Your task to perform on an android device: Open Maps and search for coffee Image 0: 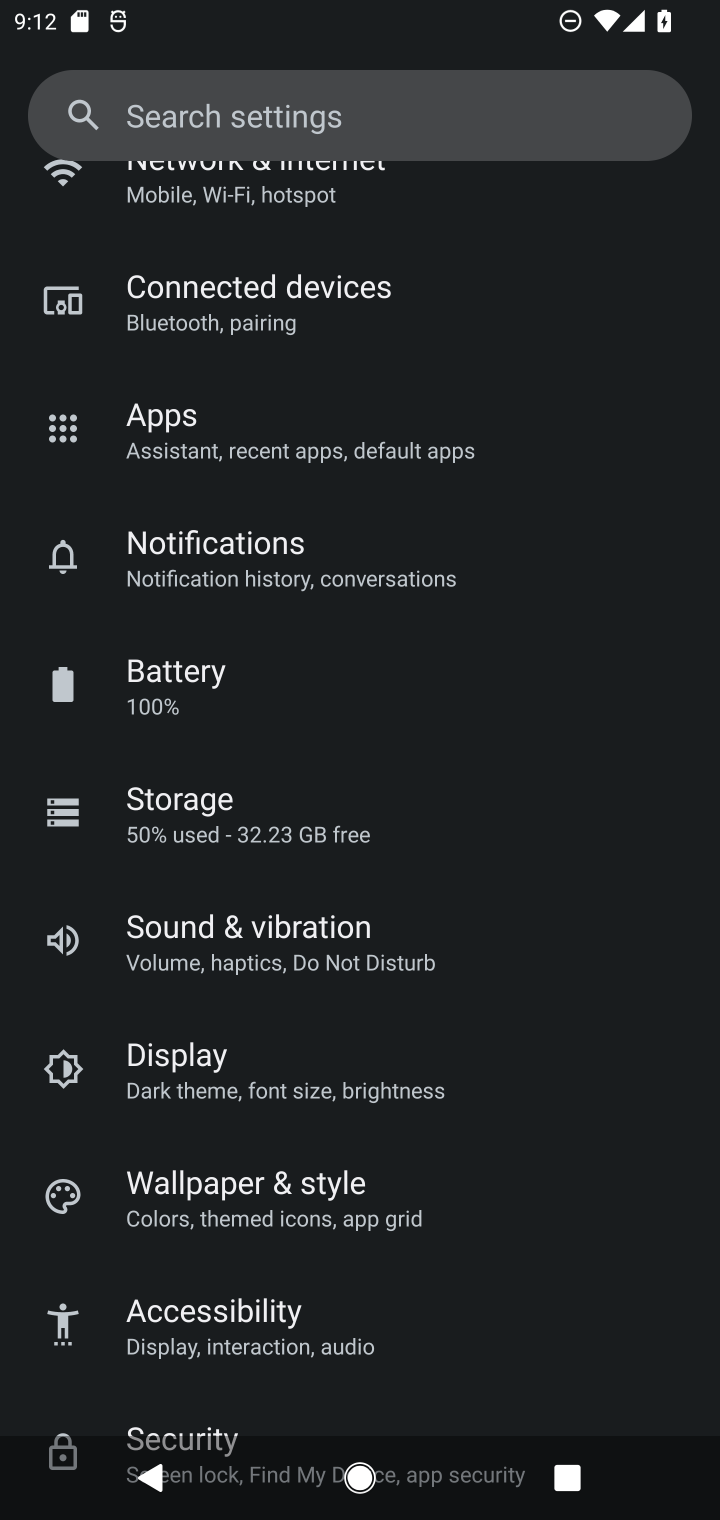
Step 0: press home button
Your task to perform on an android device: Open Maps and search for coffee Image 1: 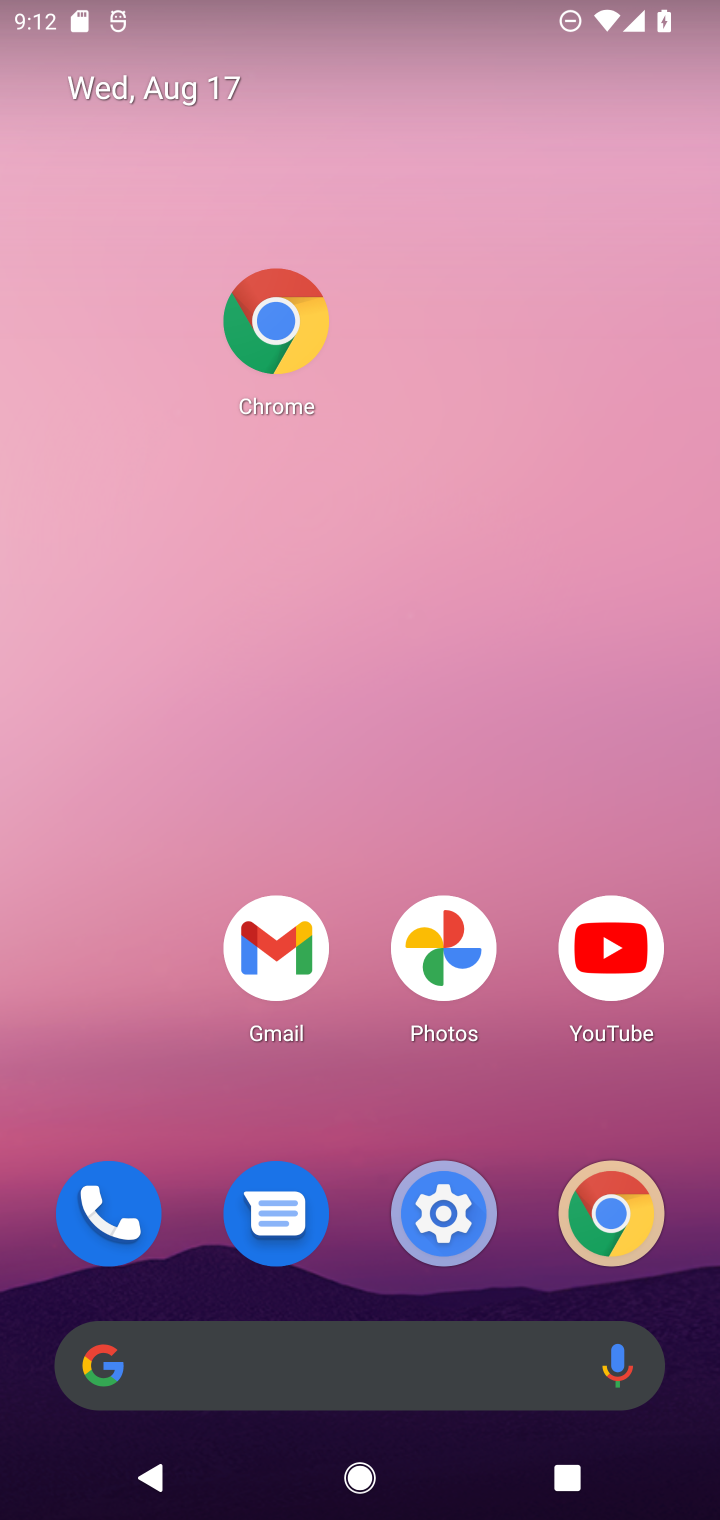
Step 1: drag from (372, 1302) to (366, 496)
Your task to perform on an android device: Open Maps and search for coffee Image 2: 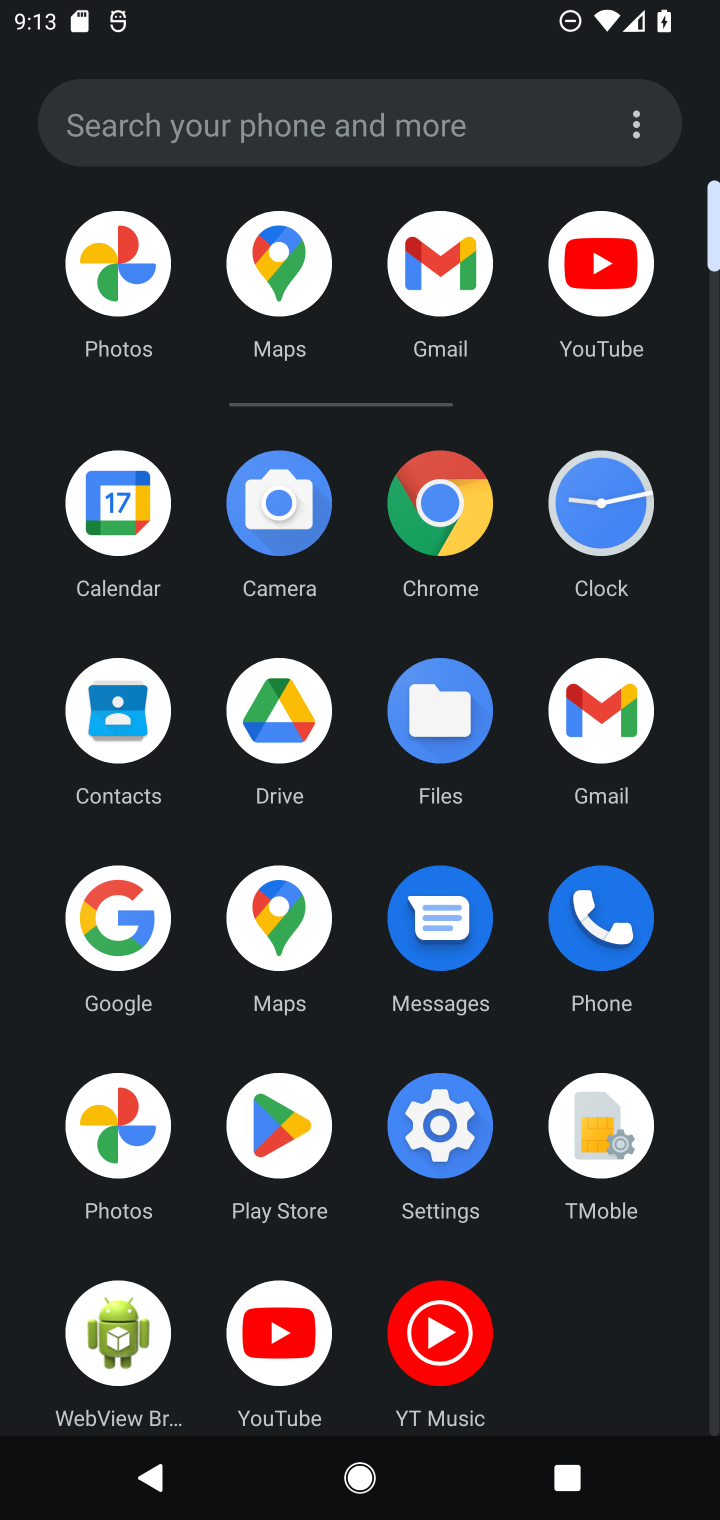
Step 2: click (268, 355)
Your task to perform on an android device: Open Maps and search for coffee Image 3: 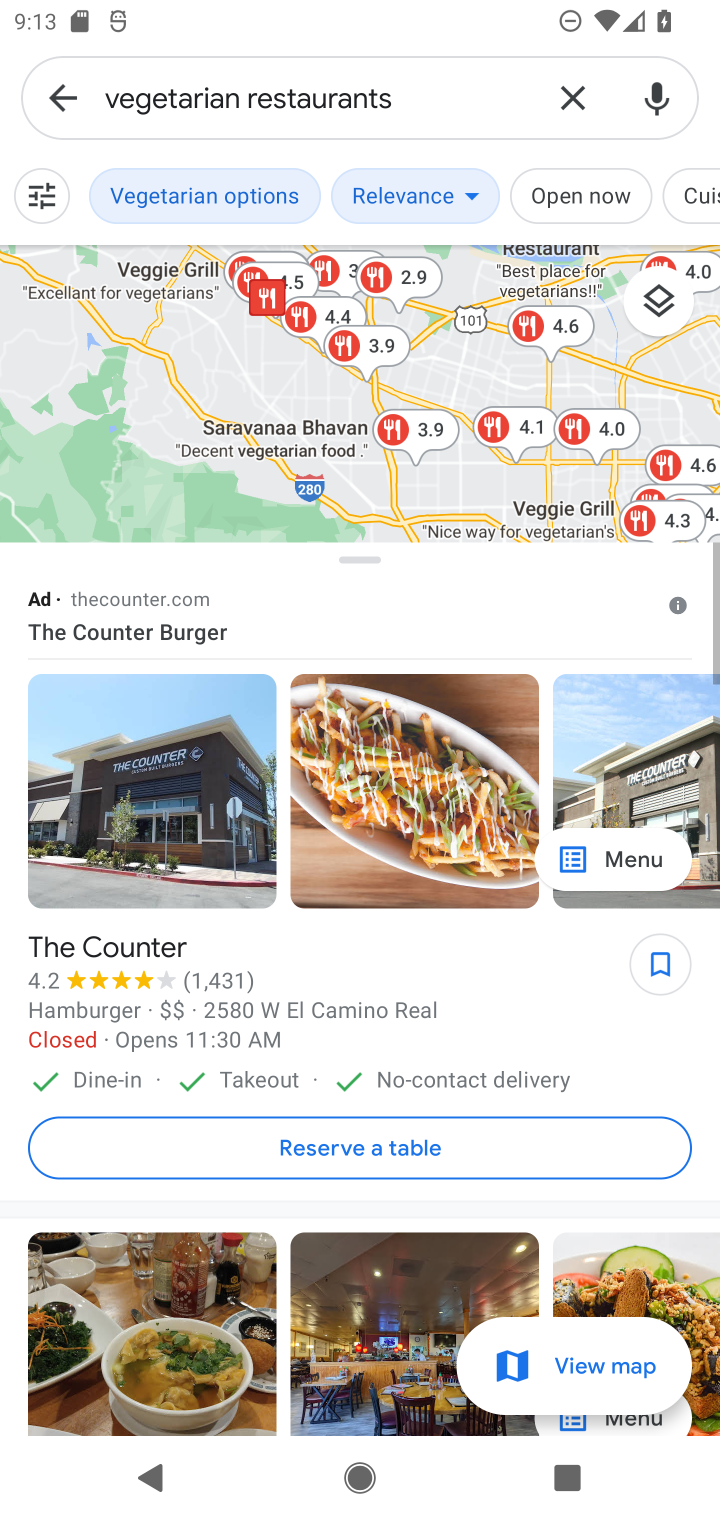
Step 3: click (589, 98)
Your task to perform on an android device: Open Maps and search for coffee Image 4: 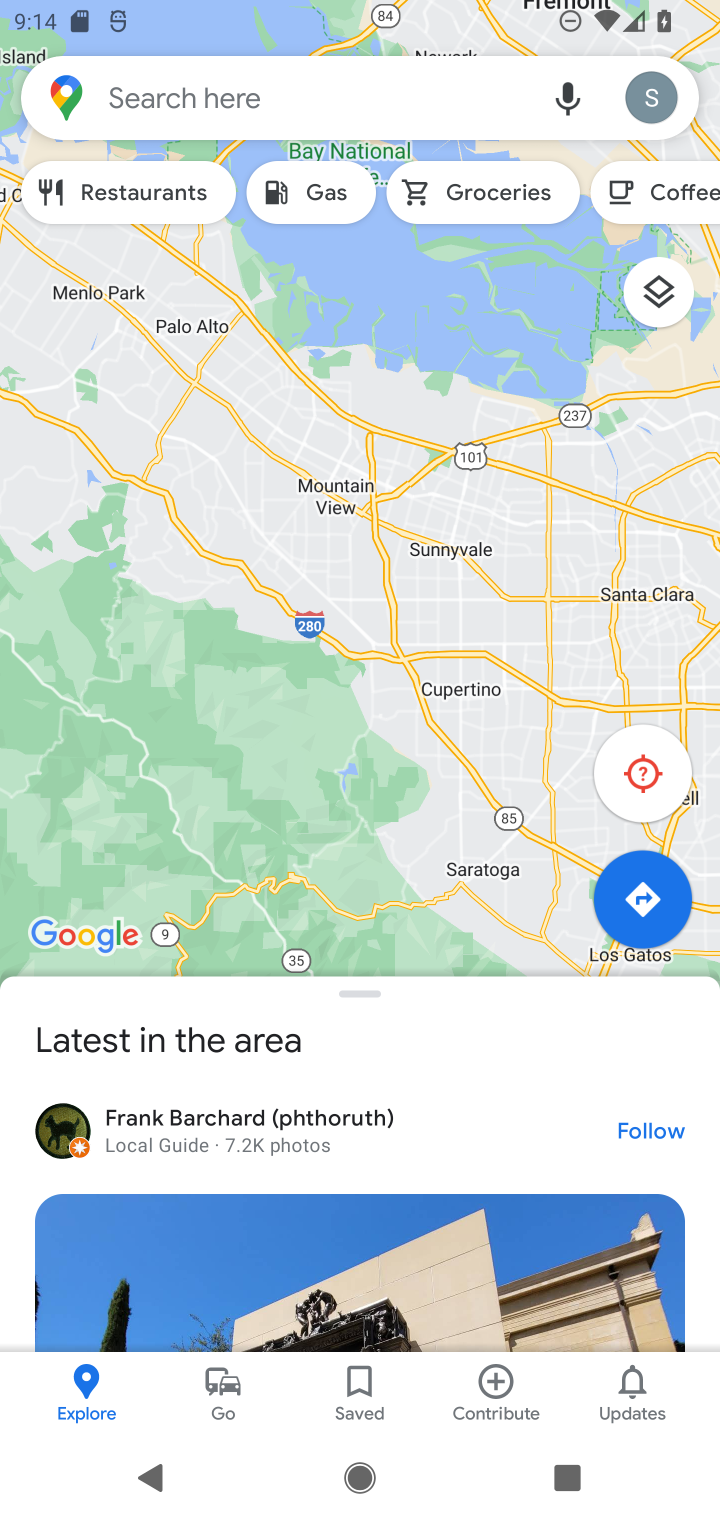
Step 4: click (390, 108)
Your task to perform on an android device: Open Maps and search for coffee Image 5: 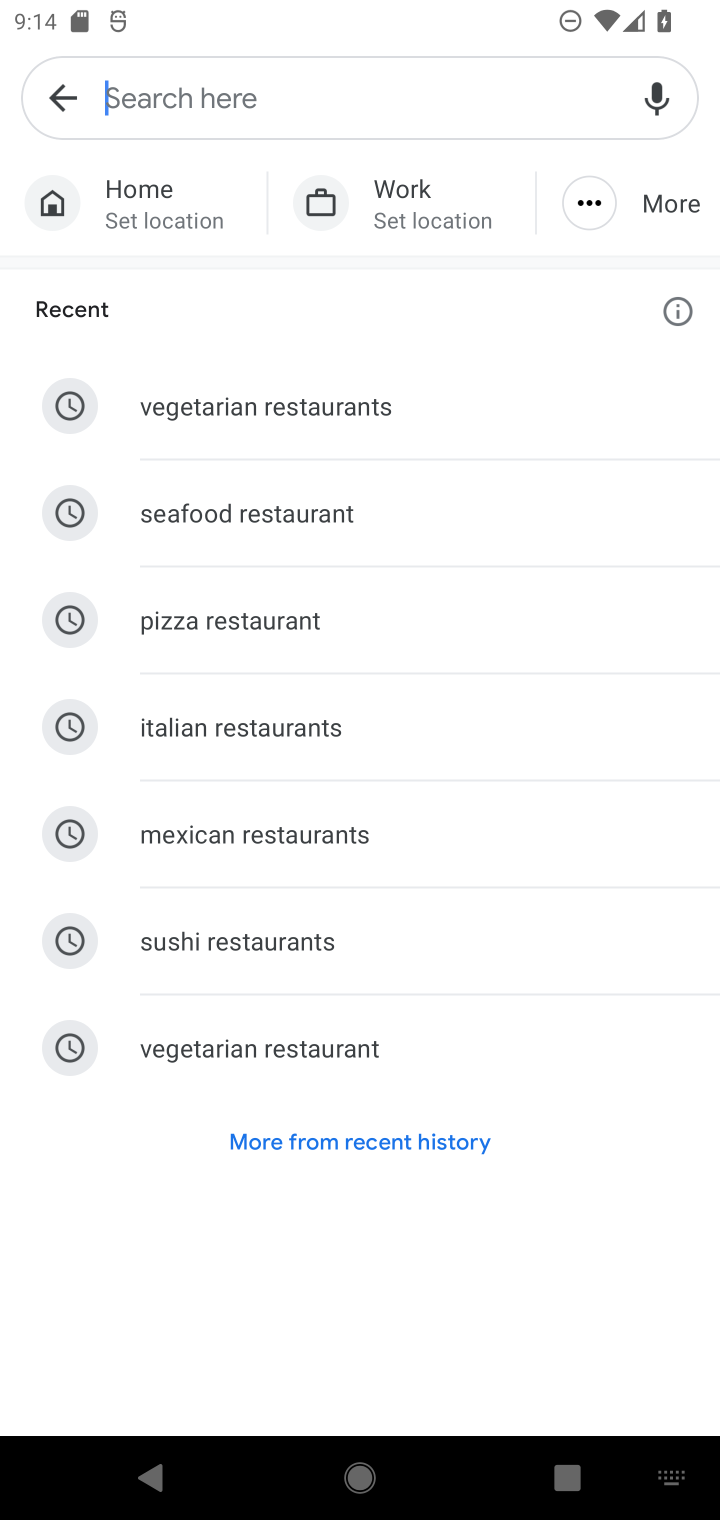
Step 5: type "coffee"
Your task to perform on an android device: Open Maps and search for coffee Image 6: 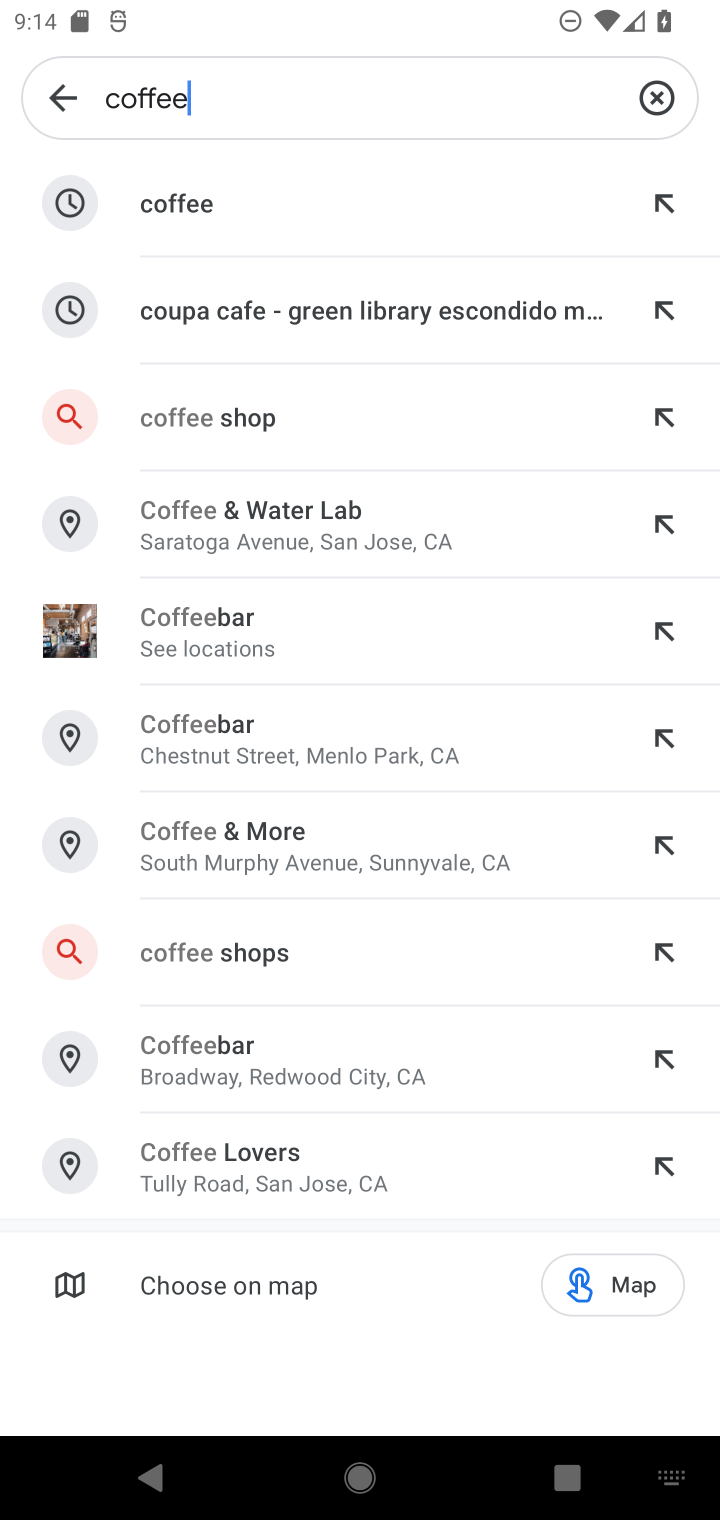
Step 6: click (251, 205)
Your task to perform on an android device: Open Maps and search for coffee Image 7: 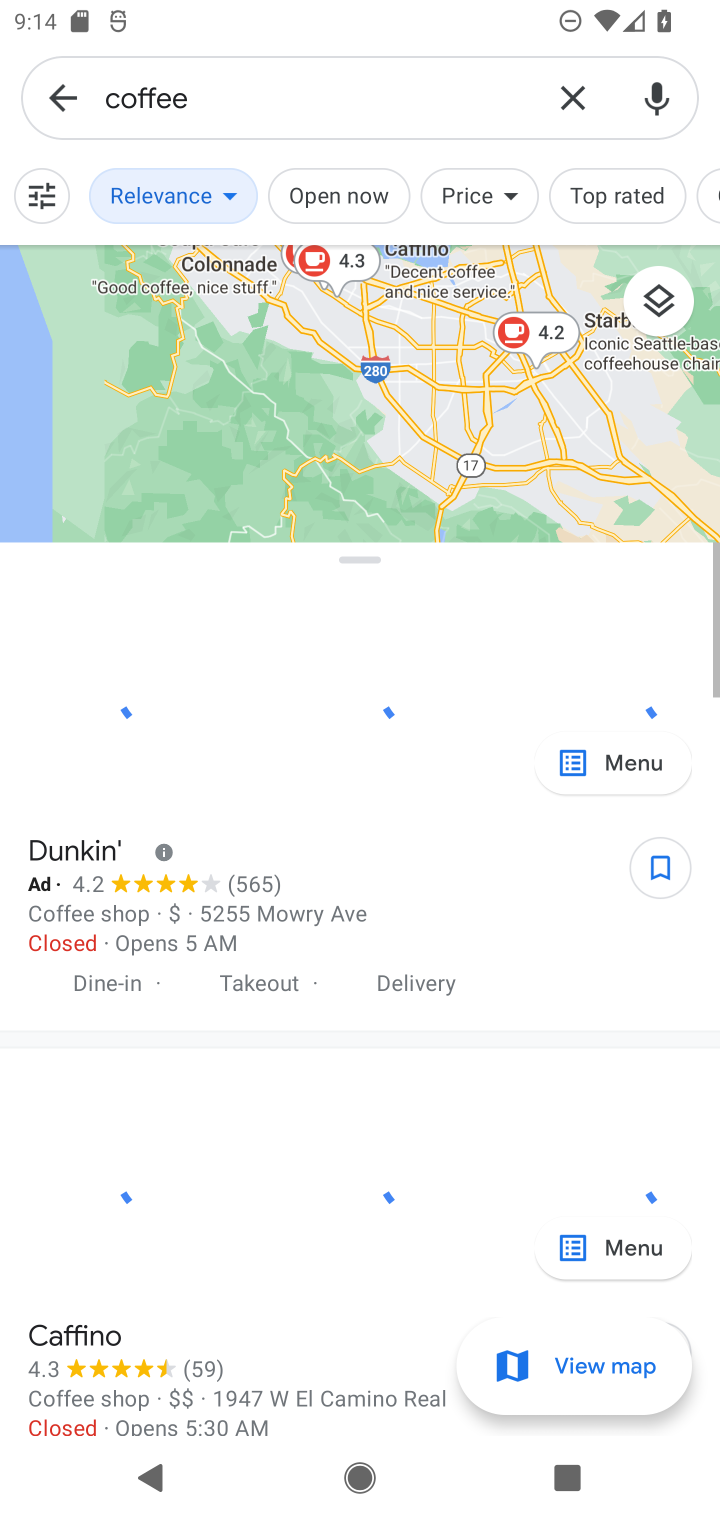
Step 7: task complete